Your task to perform on an android device: Go to display settings Image 0: 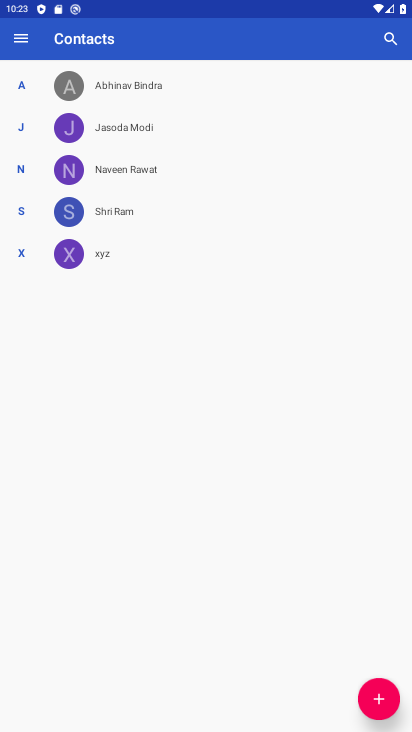
Step 0: press home button
Your task to perform on an android device: Go to display settings Image 1: 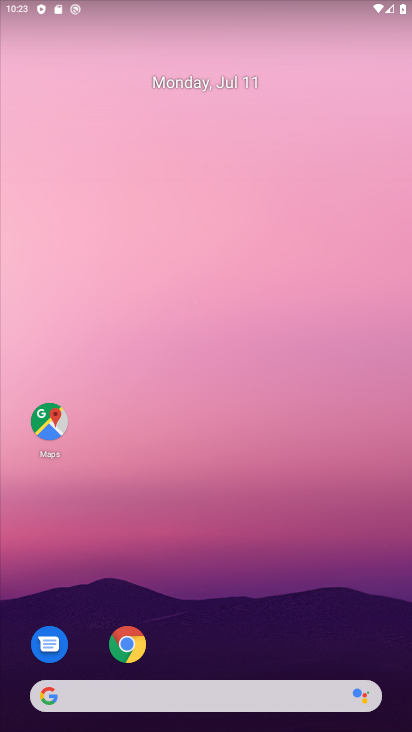
Step 1: drag from (244, 656) to (253, 0)
Your task to perform on an android device: Go to display settings Image 2: 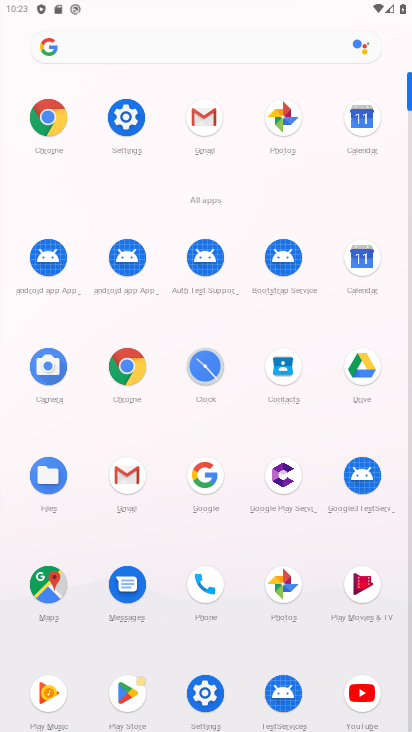
Step 2: click (205, 695)
Your task to perform on an android device: Go to display settings Image 3: 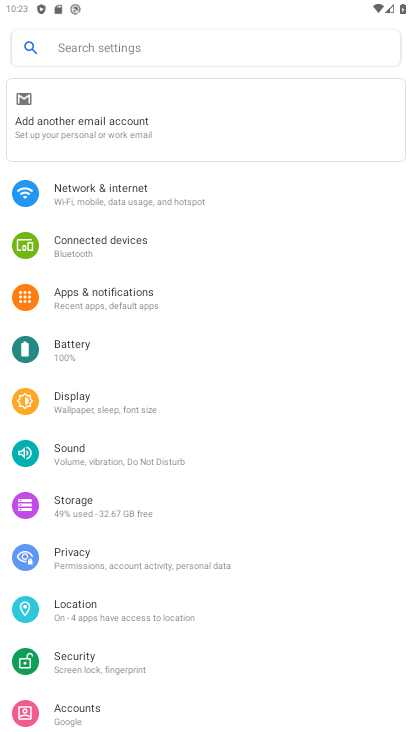
Step 3: click (84, 406)
Your task to perform on an android device: Go to display settings Image 4: 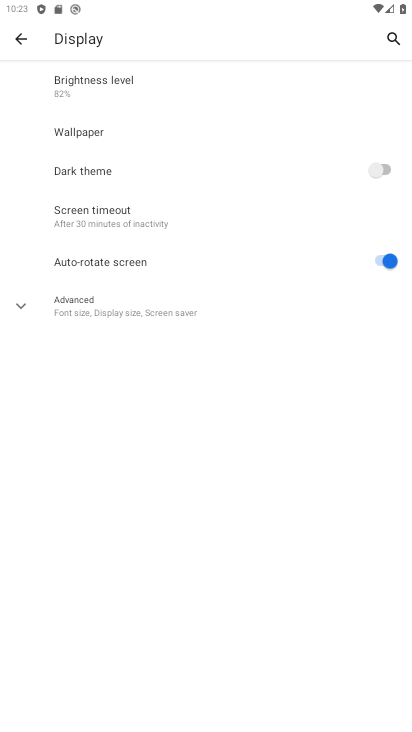
Step 4: task complete